Your task to perform on an android device: turn on data saver in the chrome app Image 0: 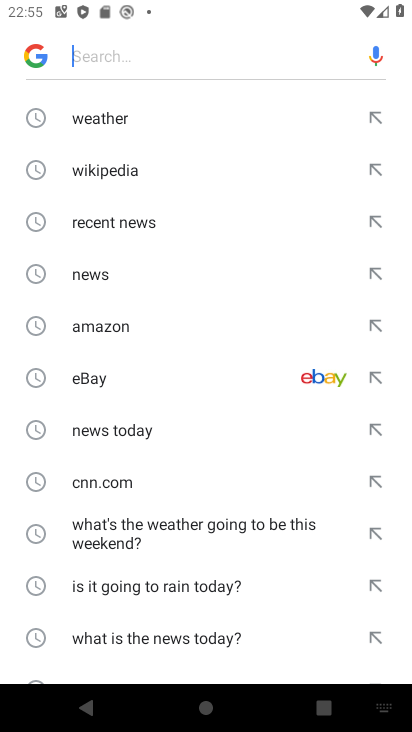
Step 0: press home button
Your task to perform on an android device: turn on data saver in the chrome app Image 1: 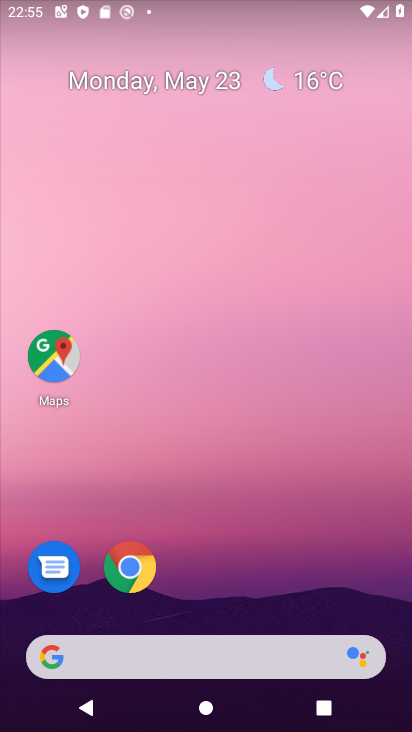
Step 1: click (147, 558)
Your task to perform on an android device: turn on data saver in the chrome app Image 2: 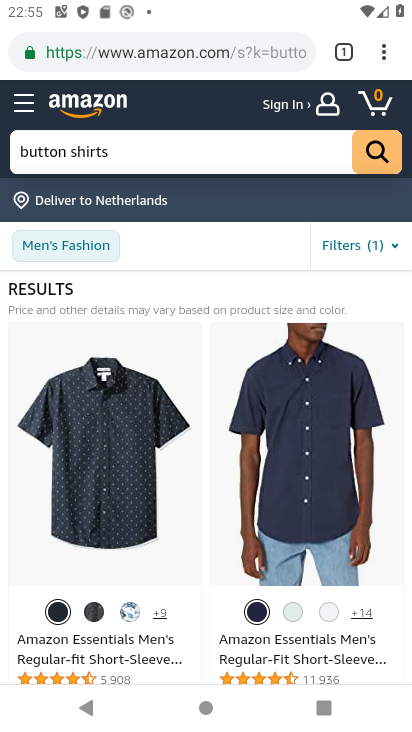
Step 2: click (386, 46)
Your task to perform on an android device: turn on data saver in the chrome app Image 3: 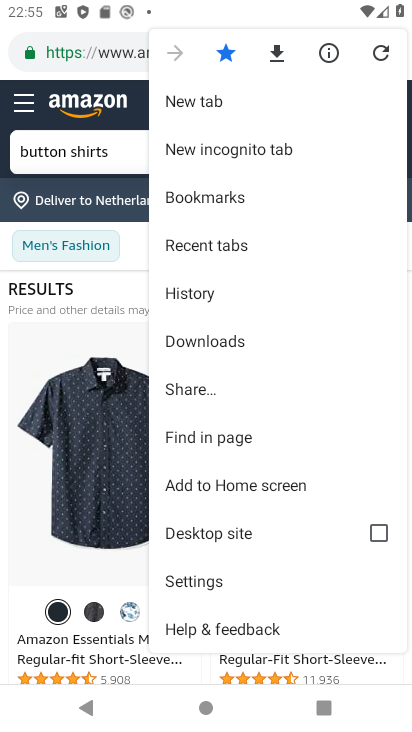
Step 3: click (212, 583)
Your task to perform on an android device: turn on data saver in the chrome app Image 4: 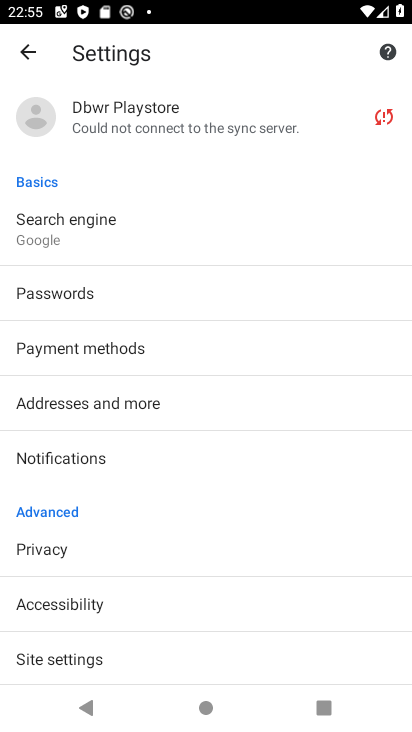
Step 4: drag from (179, 678) to (179, 641)
Your task to perform on an android device: turn on data saver in the chrome app Image 5: 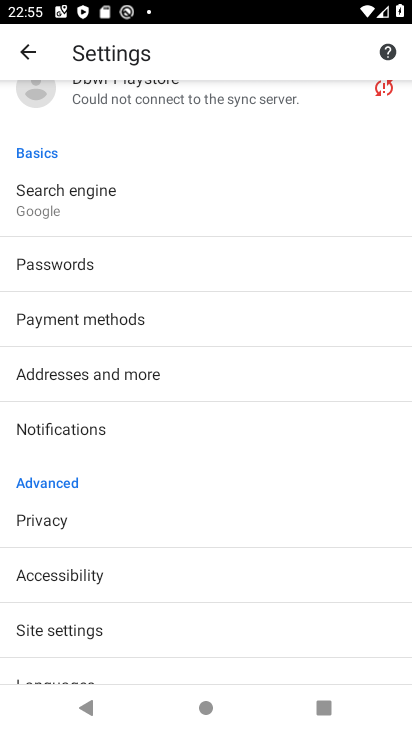
Step 5: drag from (196, 607) to (248, 403)
Your task to perform on an android device: turn on data saver in the chrome app Image 6: 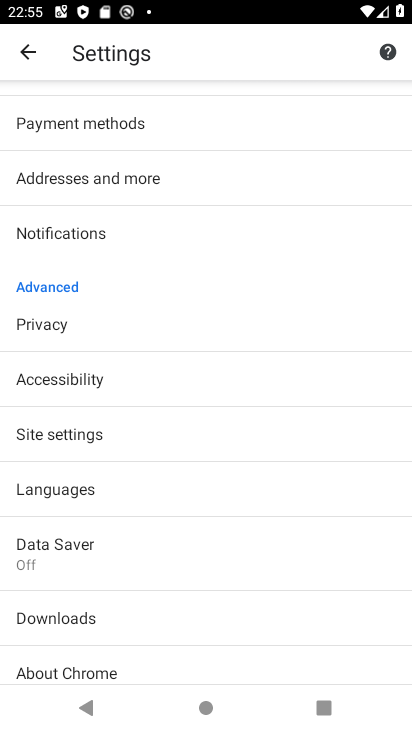
Step 6: click (169, 530)
Your task to perform on an android device: turn on data saver in the chrome app Image 7: 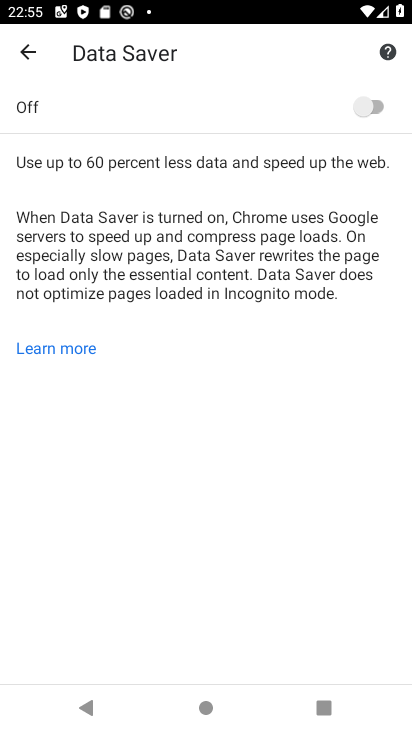
Step 7: click (365, 113)
Your task to perform on an android device: turn on data saver in the chrome app Image 8: 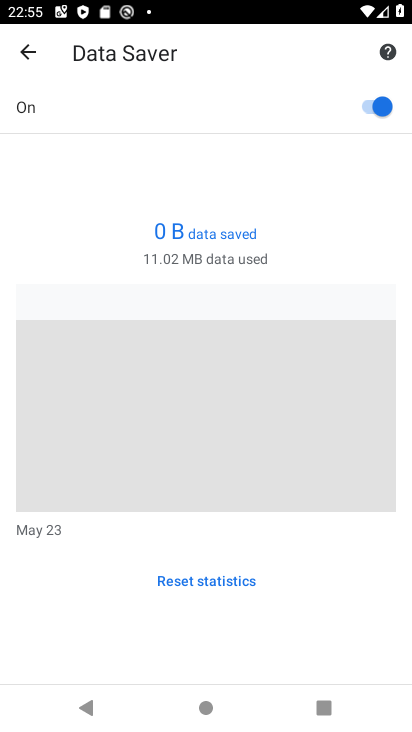
Step 8: task complete